Your task to perform on an android device: refresh tabs in the chrome app Image 0: 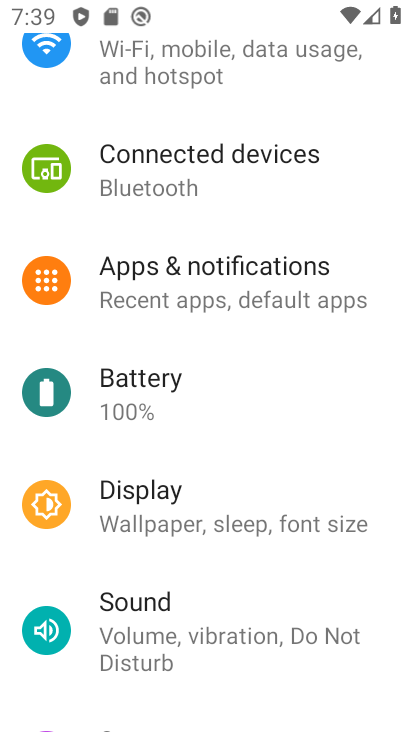
Step 0: press home button
Your task to perform on an android device: refresh tabs in the chrome app Image 1: 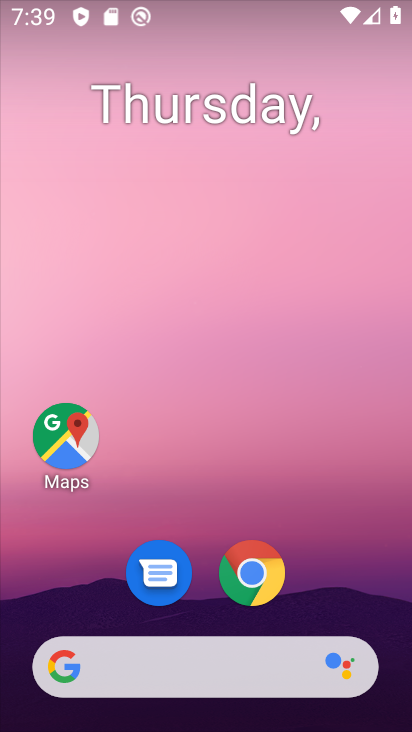
Step 1: click (251, 568)
Your task to perform on an android device: refresh tabs in the chrome app Image 2: 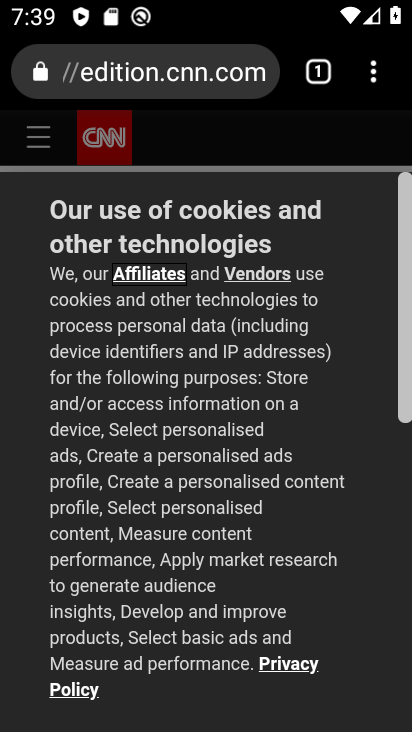
Step 2: click (372, 72)
Your task to perform on an android device: refresh tabs in the chrome app Image 3: 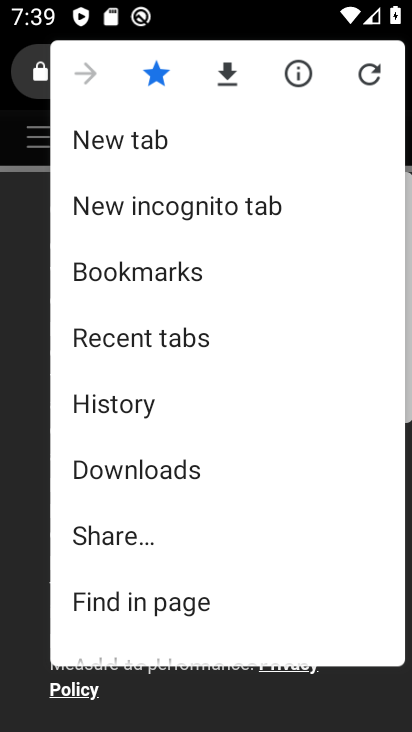
Step 3: click (371, 66)
Your task to perform on an android device: refresh tabs in the chrome app Image 4: 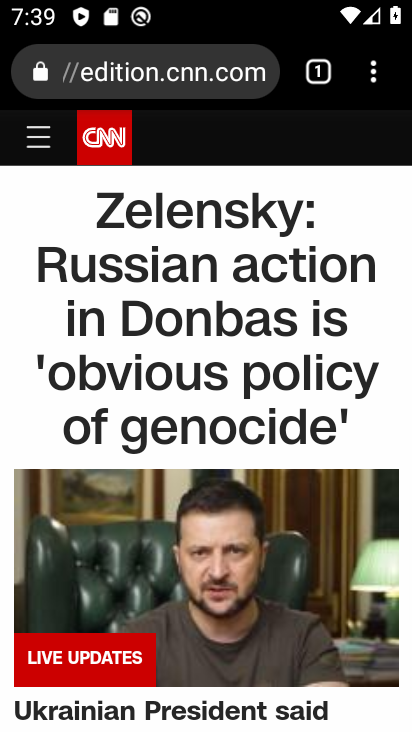
Step 4: task complete